Your task to perform on an android device: Open network settings Image 0: 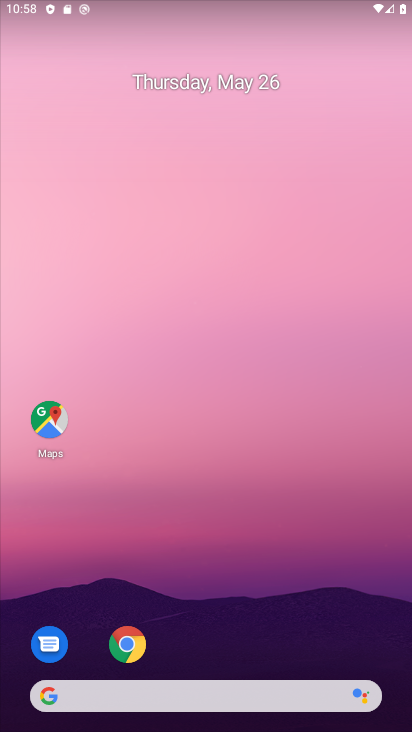
Step 0: drag from (124, 727) to (145, 54)
Your task to perform on an android device: Open network settings Image 1: 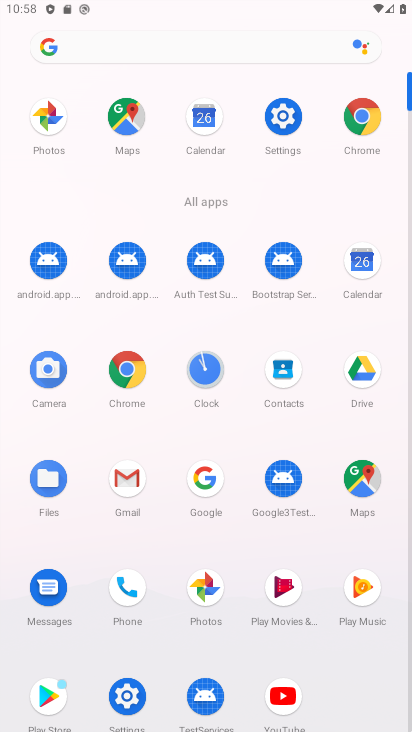
Step 1: click (282, 118)
Your task to perform on an android device: Open network settings Image 2: 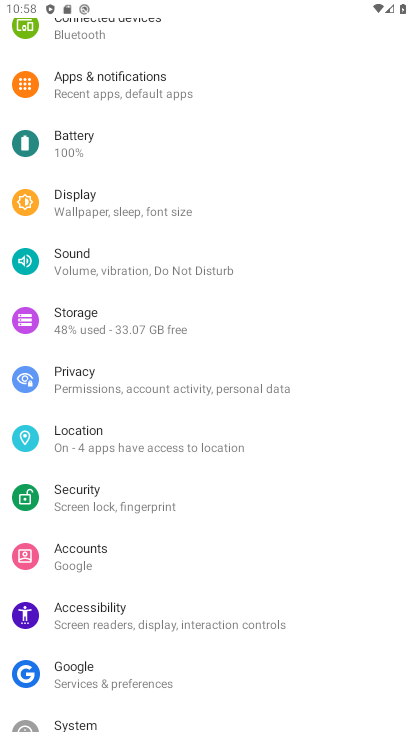
Step 2: drag from (257, 66) to (281, 567)
Your task to perform on an android device: Open network settings Image 3: 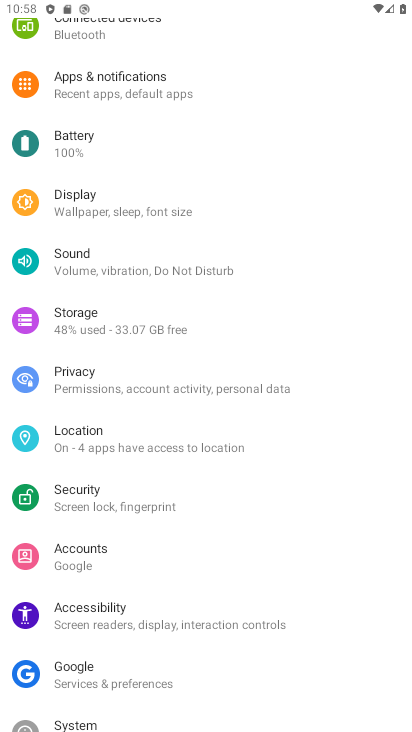
Step 3: drag from (187, 68) to (210, 654)
Your task to perform on an android device: Open network settings Image 4: 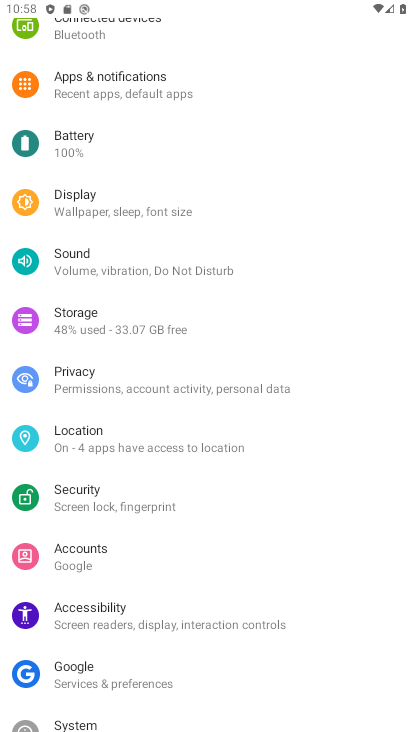
Step 4: drag from (256, 35) to (253, 601)
Your task to perform on an android device: Open network settings Image 5: 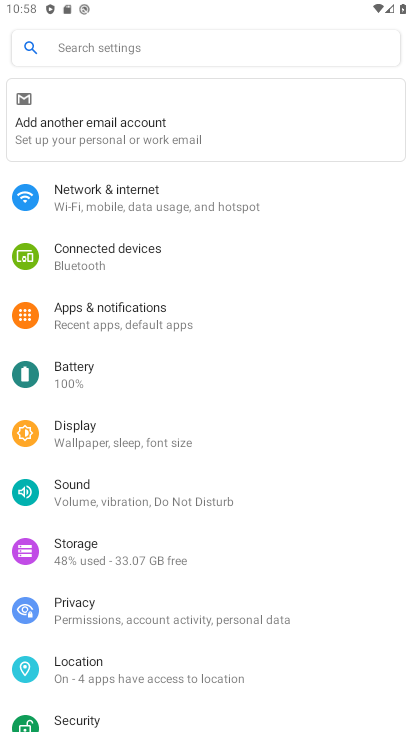
Step 5: click (167, 205)
Your task to perform on an android device: Open network settings Image 6: 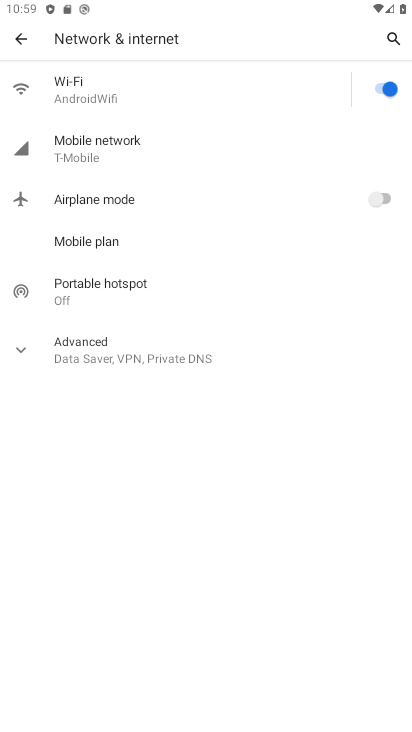
Step 6: click (56, 351)
Your task to perform on an android device: Open network settings Image 7: 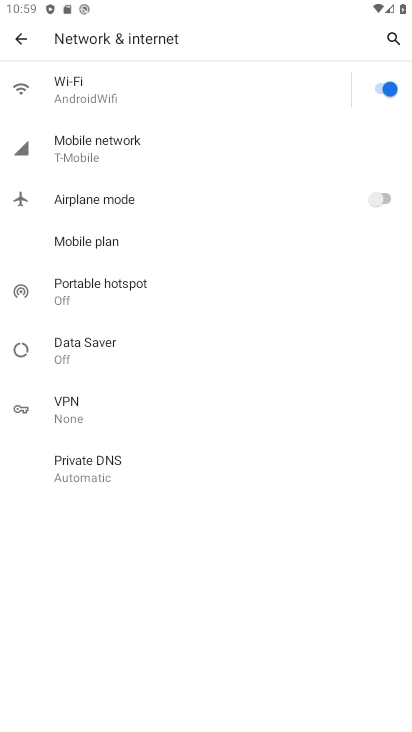
Step 7: click (122, 158)
Your task to perform on an android device: Open network settings Image 8: 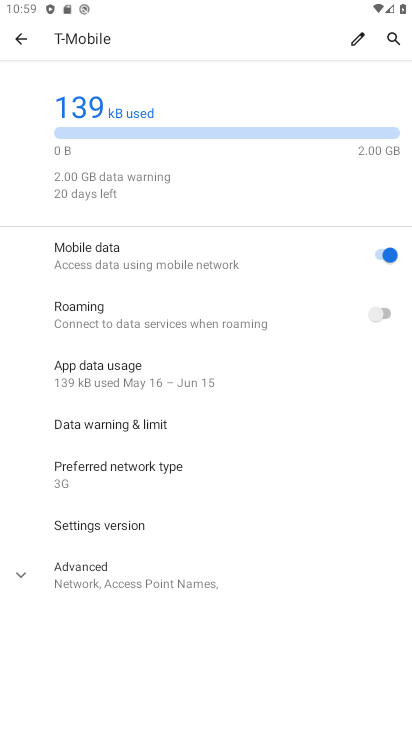
Step 8: click (94, 577)
Your task to perform on an android device: Open network settings Image 9: 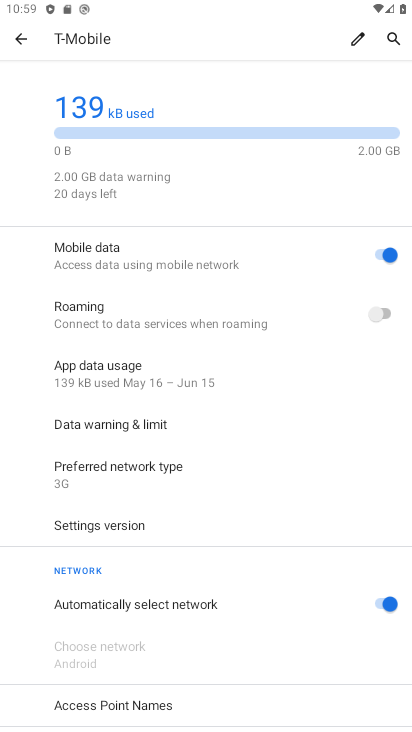
Step 9: task complete